Your task to perform on an android device: change your default location settings in chrome Image 0: 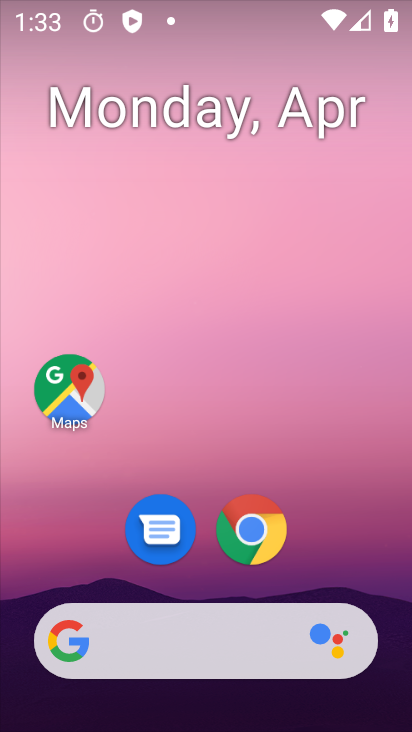
Step 0: click (241, 518)
Your task to perform on an android device: change your default location settings in chrome Image 1: 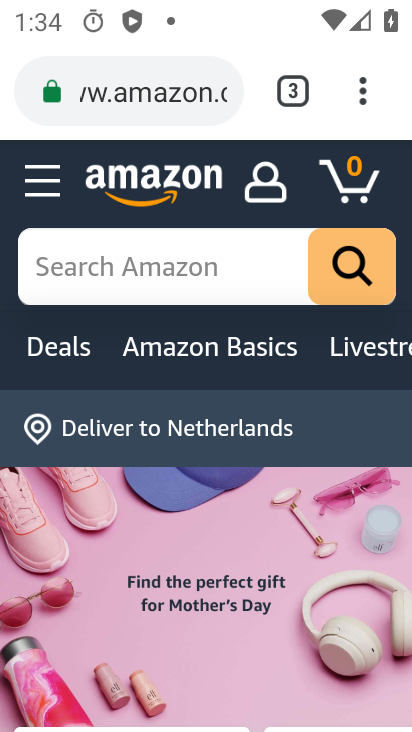
Step 1: click (360, 93)
Your task to perform on an android device: change your default location settings in chrome Image 2: 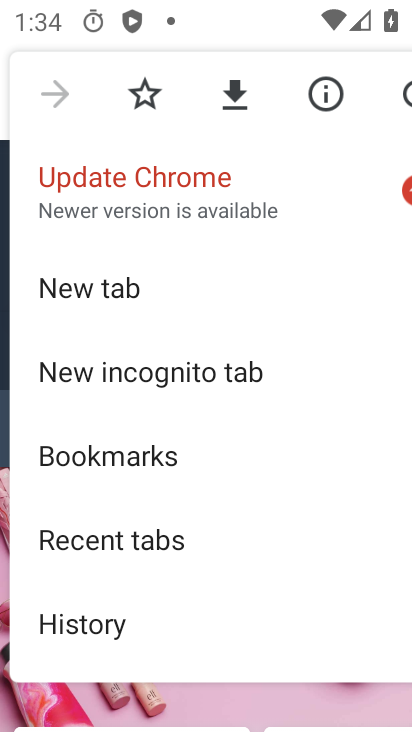
Step 2: drag from (218, 593) to (276, 182)
Your task to perform on an android device: change your default location settings in chrome Image 3: 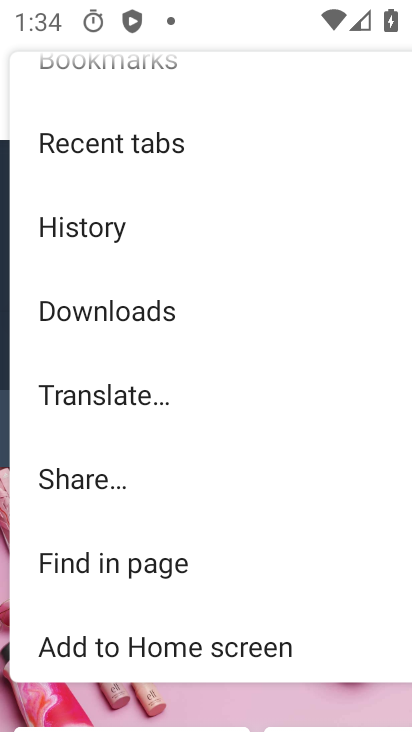
Step 3: drag from (206, 573) to (271, 291)
Your task to perform on an android device: change your default location settings in chrome Image 4: 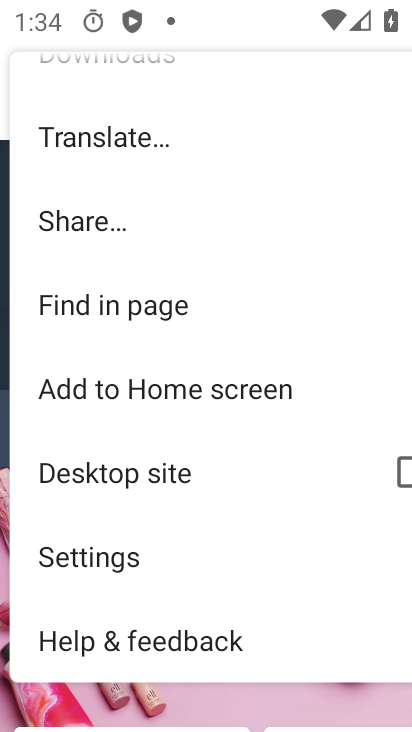
Step 4: click (141, 566)
Your task to perform on an android device: change your default location settings in chrome Image 5: 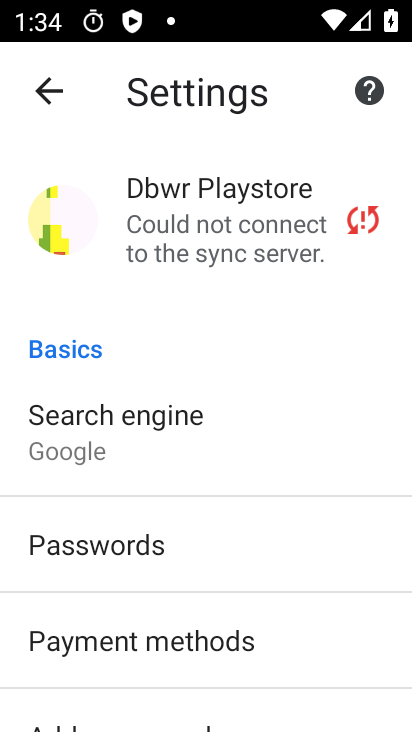
Step 5: click (220, 638)
Your task to perform on an android device: change your default location settings in chrome Image 6: 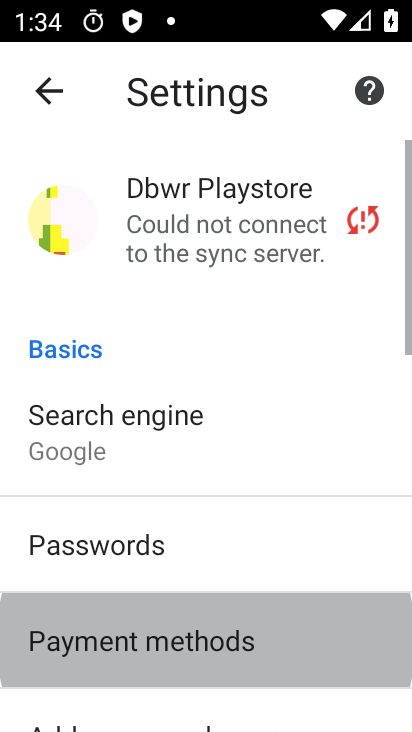
Step 6: drag from (242, 565) to (277, 309)
Your task to perform on an android device: change your default location settings in chrome Image 7: 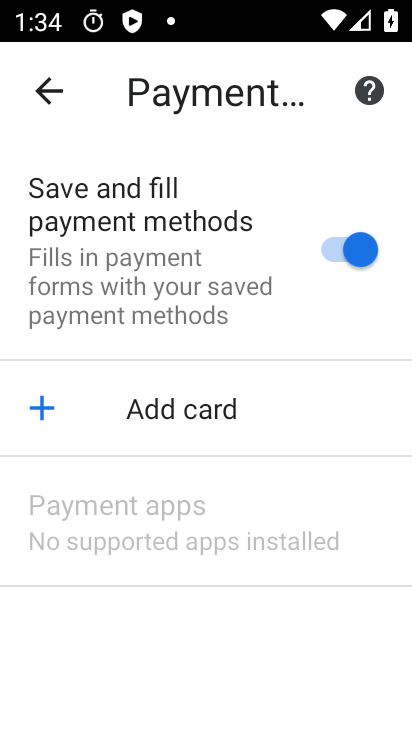
Step 7: click (72, 80)
Your task to perform on an android device: change your default location settings in chrome Image 8: 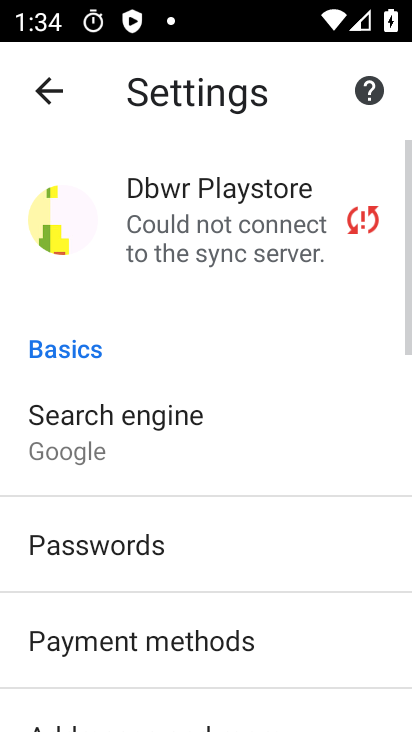
Step 8: drag from (205, 527) to (265, 236)
Your task to perform on an android device: change your default location settings in chrome Image 9: 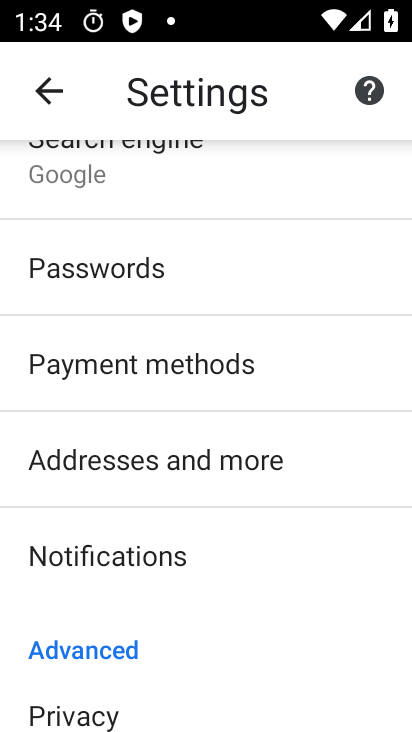
Step 9: drag from (241, 571) to (348, 213)
Your task to perform on an android device: change your default location settings in chrome Image 10: 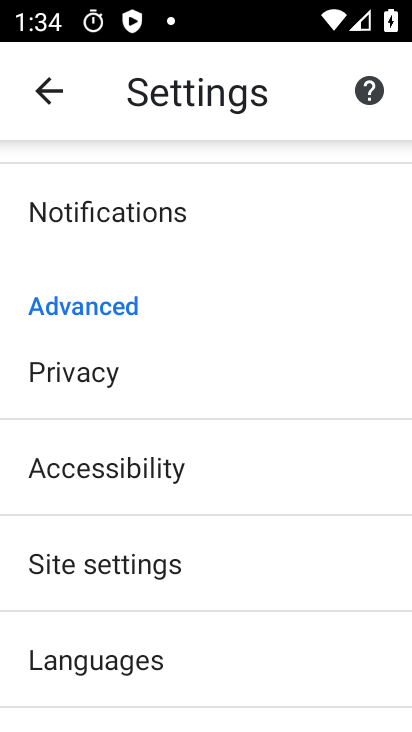
Step 10: click (203, 567)
Your task to perform on an android device: change your default location settings in chrome Image 11: 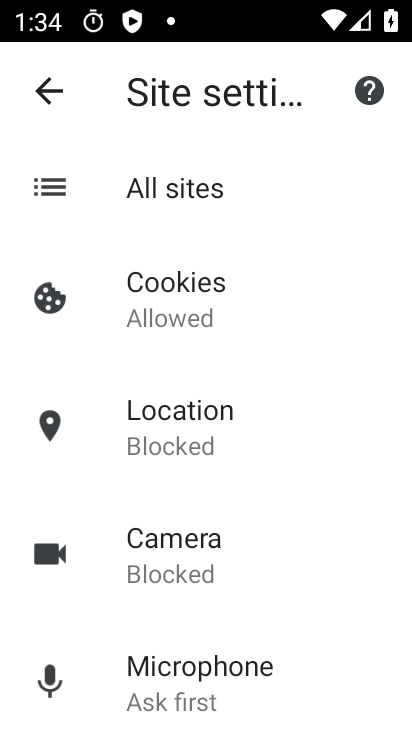
Step 11: drag from (234, 655) to (243, 464)
Your task to perform on an android device: change your default location settings in chrome Image 12: 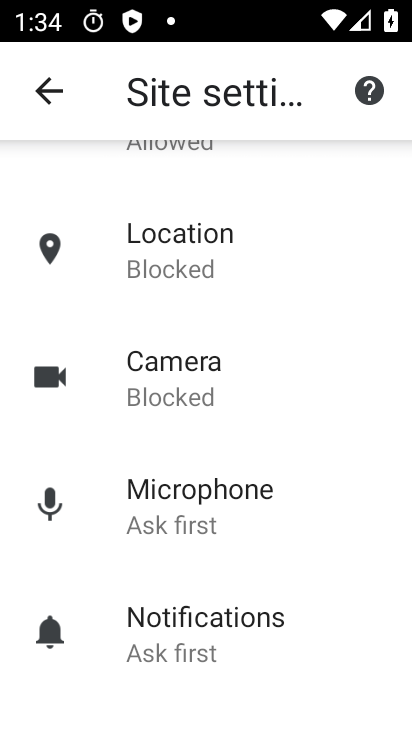
Step 12: click (204, 258)
Your task to perform on an android device: change your default location settings in chrome Image 13: 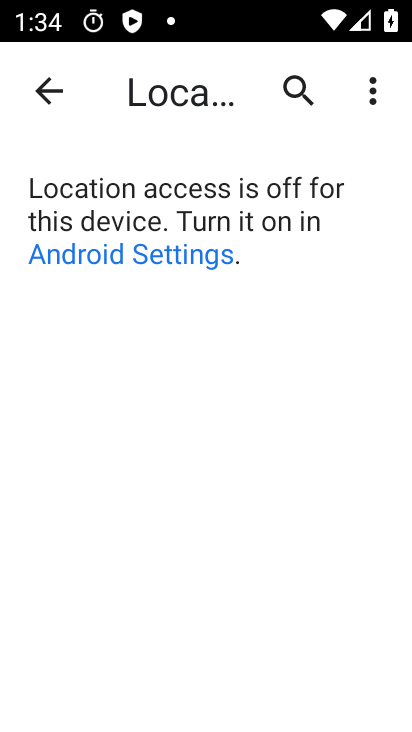
Step 13: click (59, 90)
Your task to perform on an android device: change your default location settings in chrome Image 14: 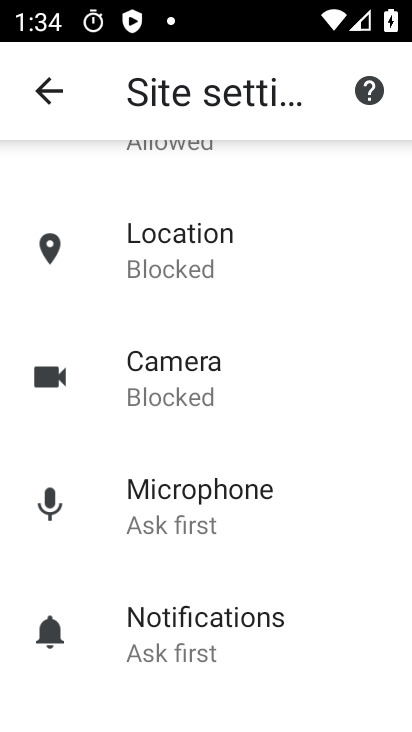
Step 14: click (219, 256)
Your task to perform on an android device: change your default location settings in chrome Image 15: 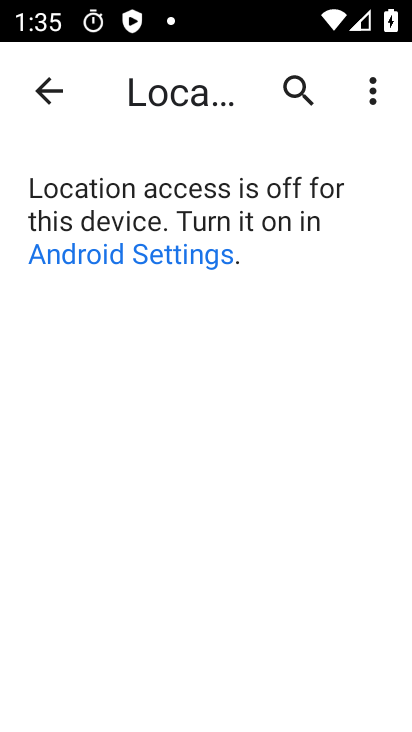
Step 15: task complete